Your task to perform on an android device: Open the calendar app, open the side menu, and click the "Day" option Image 0: 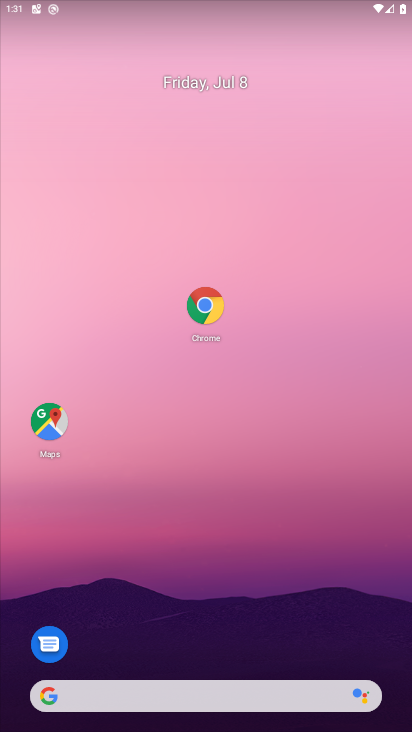
Step 0: drag from (207, 653) to (192, 274)
Your task to perform on an android device: Open the calendar app, open the side menu, and click the "Day" option Image 1: 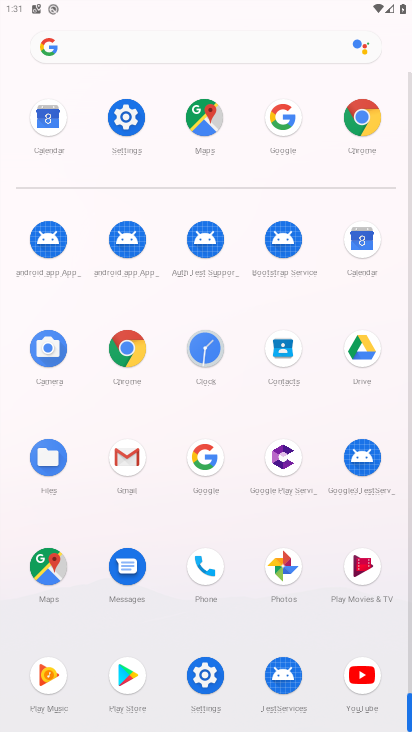
Step 1: click (367, 248)
Your task to perform on an android device: Open the calendar app, open the side menu, and click the "Day" option Image 2: 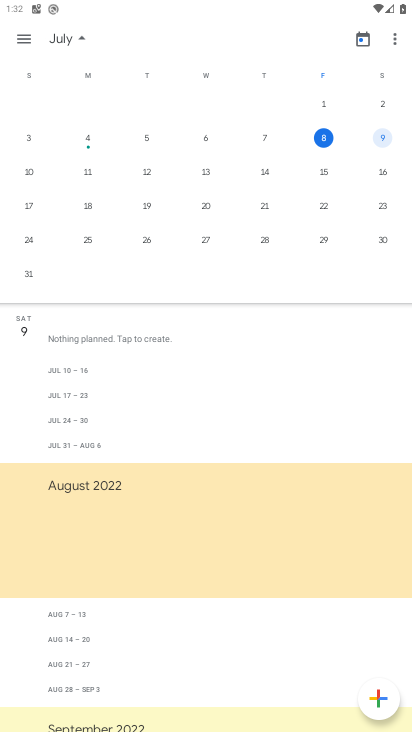
Step 2: click (28, 39)
Your task to perform on an android device: Open the calendar app, open the side menu, and click the "Day" option Image 3: 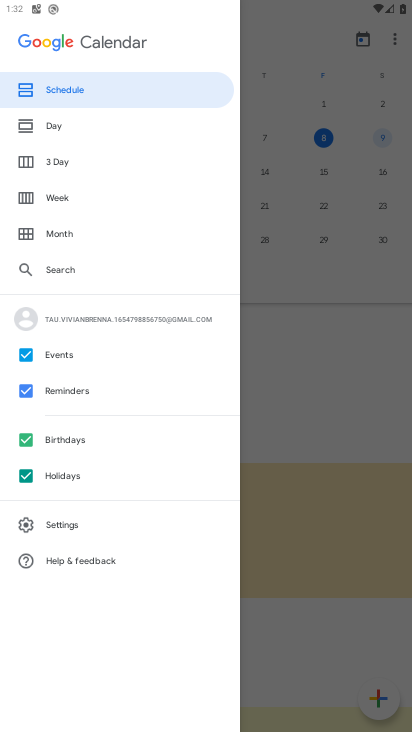
Step 3: click (48, 140)
Your task to perform on an android device: Open the calendar app, open the side menu, and click the "Day" option Image 4: 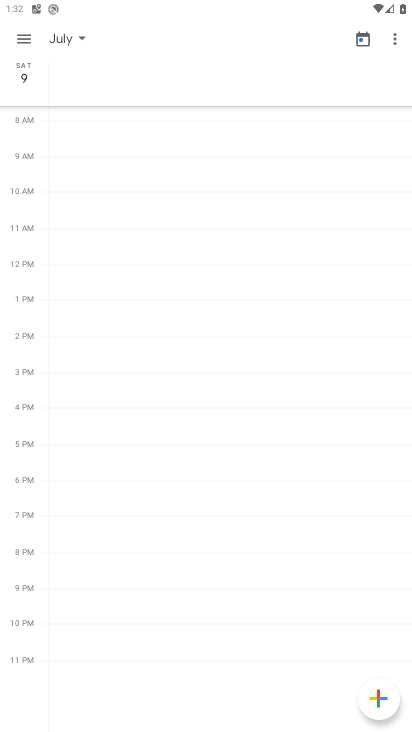
Step 4: task complete